Your task to perform on an android device: Go to accessibility settings Image 0: 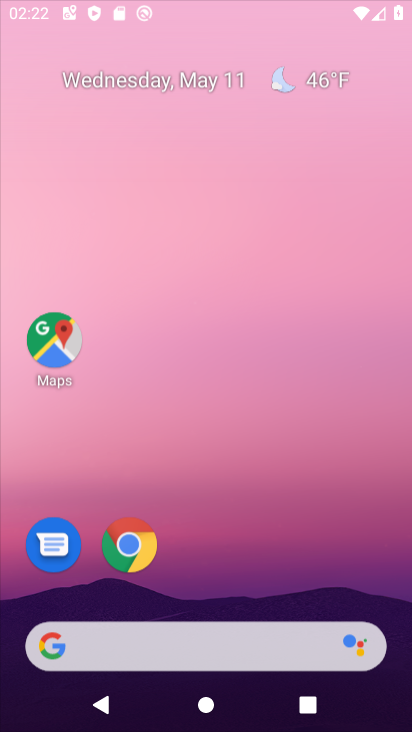
Step 0: drag from (404, 656) to (299, 217)
Your task to perform on an android device: Go to accessibility settings Image 1: 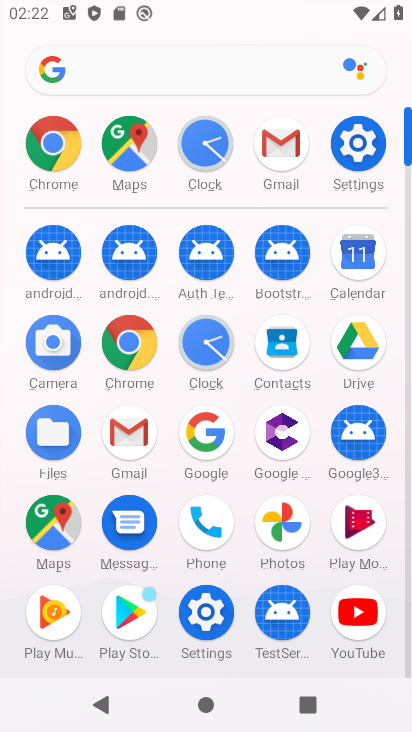
Step 1: drag from (243, 647) to (340, 13)
Your task to perform on an android device: Go to accessibility settings Image 2: 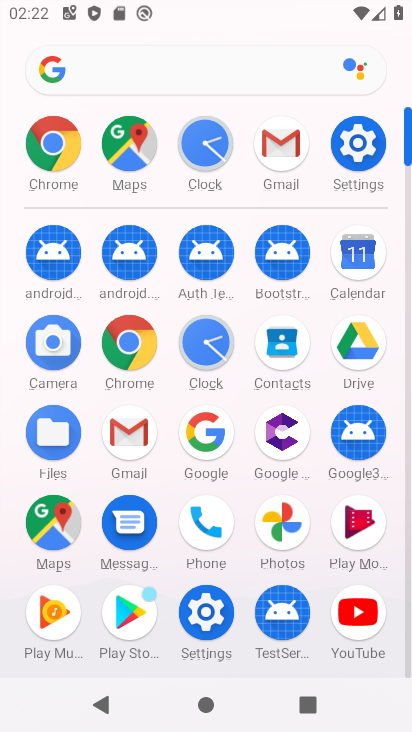
Step 2: click (123, 332)
Your task to perform on an android device: Go to accessibility settings Image 3: 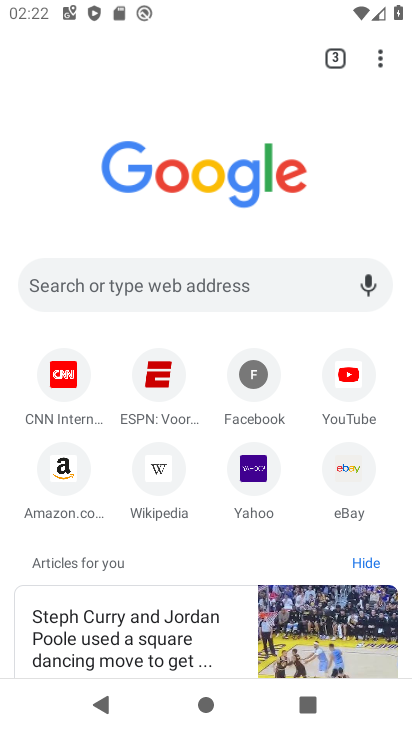
Step 3: drag from (222, 541) to (224, 352)
Your task to perform on an android device: Go to accessibility settings Image 4: 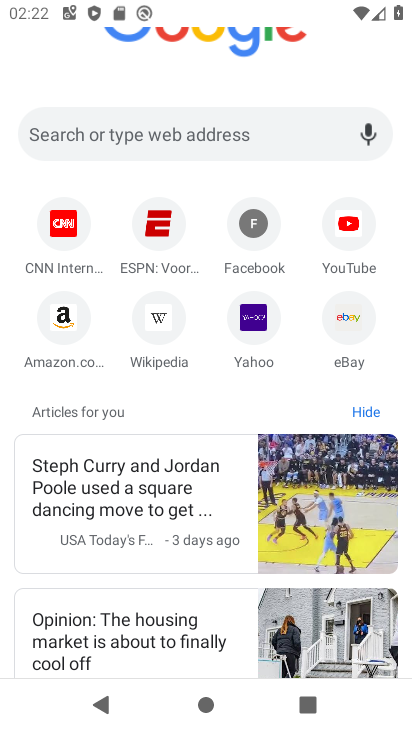
Step 4: drag from (361, 72) to (338, 284)
Your task to perform on an android device: Go to accessibility settings Image 5: 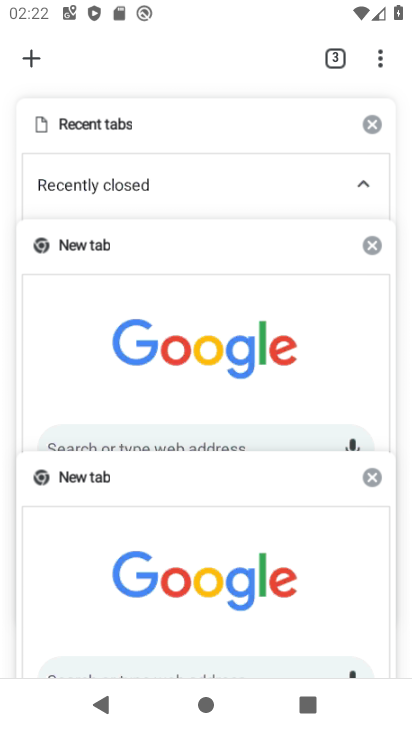
Step 5: click (287, 481)
Your task to perform on an android device: Go to accessibility settings Image 6: 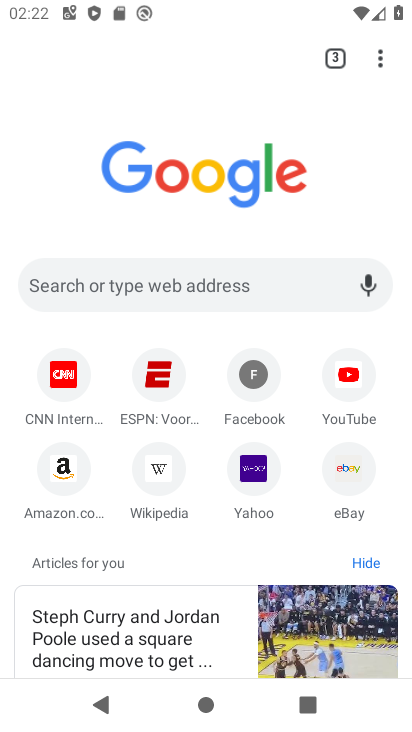
Step 6: click (373, 61)
Your task to perform on an android device: Go to accessibility settings Image 7: 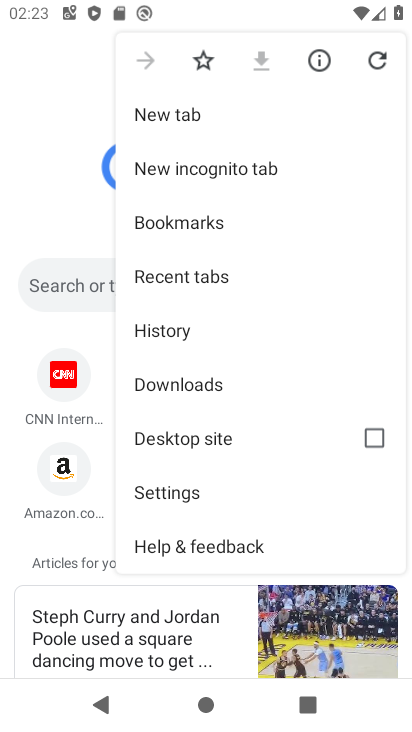
Step 7: click (198, 491)
Your task to perform on an android device: Go to accessibility settings Image 8: 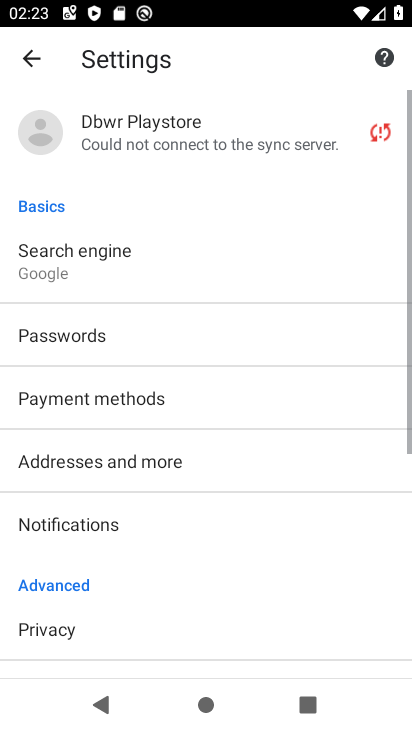
Step 8: drag from (259, 601) to (308, 276)
Your task to perform on an android device: Go to accessibility settings Image 9: 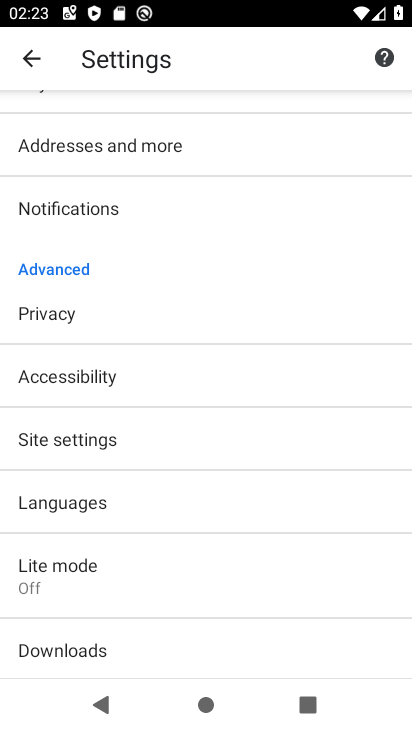
Step 9: press home button
Your task to perform on an android device: Go to accessibility settings Image 10: 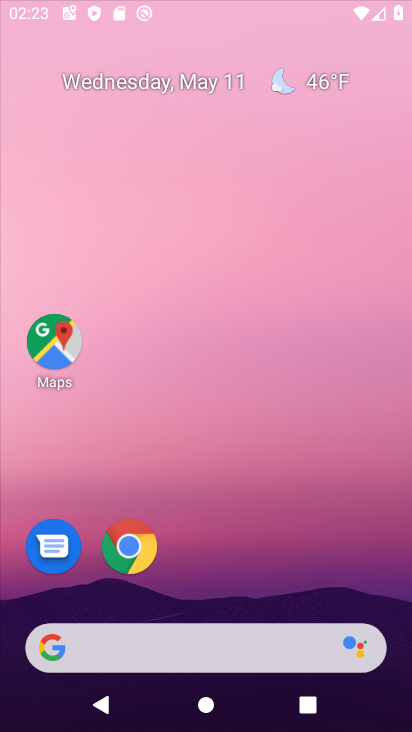
Step 10: drag from (237, 614) to (357, 161)
Your task to perform on an android device: Go to accessibility settings Image 11: 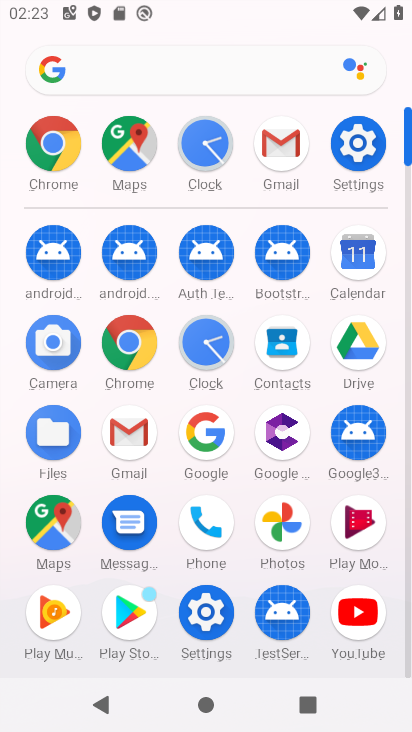
Step 11: click (349, 148)
Your task to perform on an android device: Go to accessibility settings Image 12: 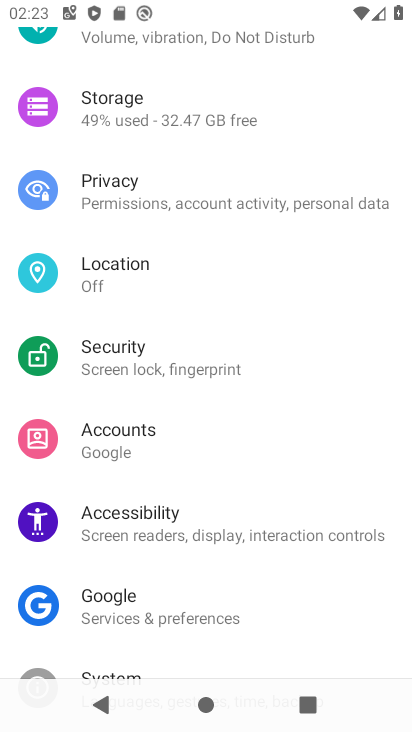
Step 12: click (156, 550)
Your task to perform on an android device: Go to accessibility settings Image 13: 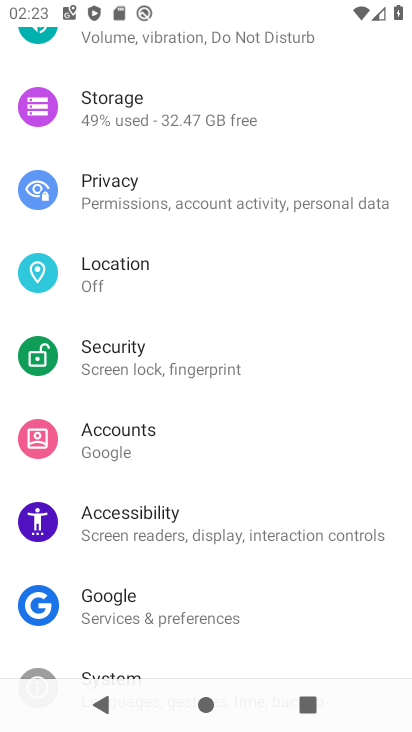
Step 13: click (156, 550)
Your task to perform on an android device: Go to accessibility settings Image 14: 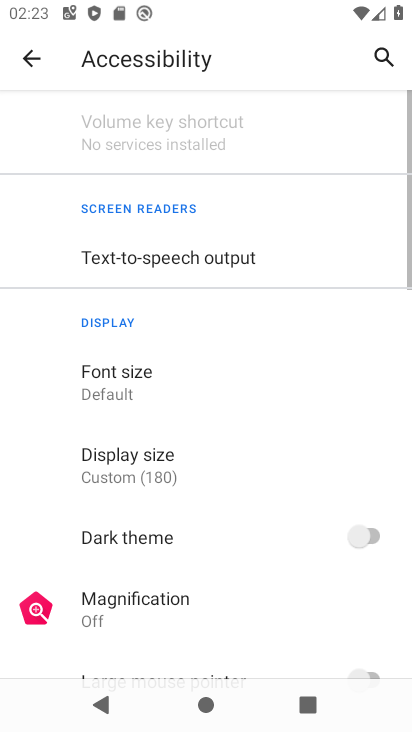
Step 14: task complete